Your task to perform on an android device: Open Google Image 0: 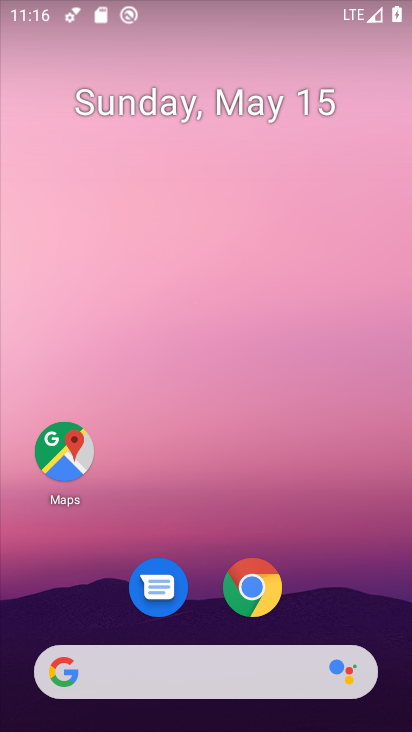
Step 0: drag from (210, 613) to (229, 152)
Your task to perform on an android device: Open Google Image 1: 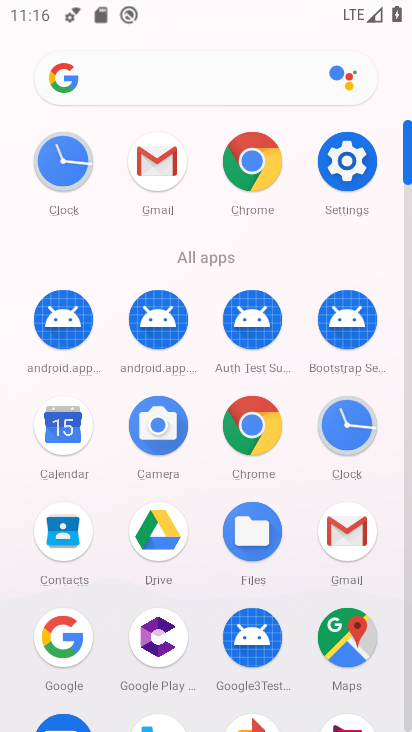
Step 1: click (71, 644)
Your task to perform on an android device: Open Google Image 2: 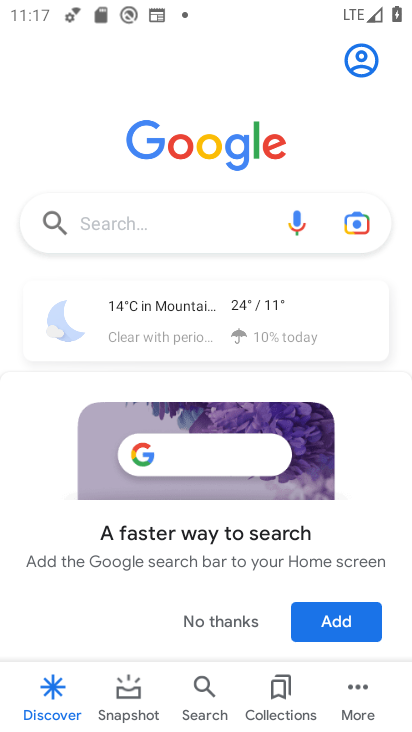
Step 2: task complete